Your task to perform on an android device: Check the weather Image 0: 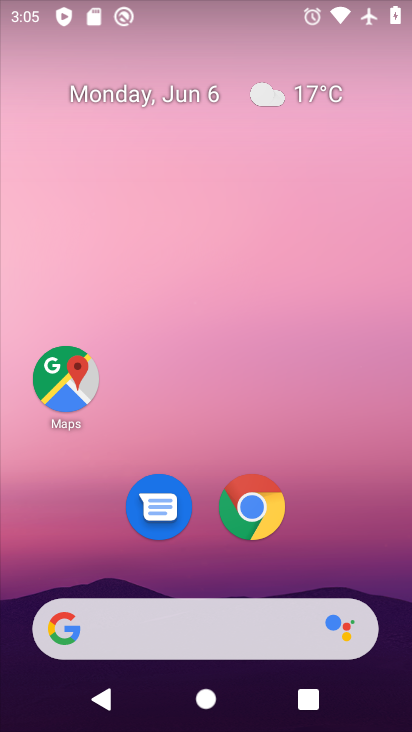
Step 0: click (182, 630)
Your task to perform on an android device: Check the weather Image 1: 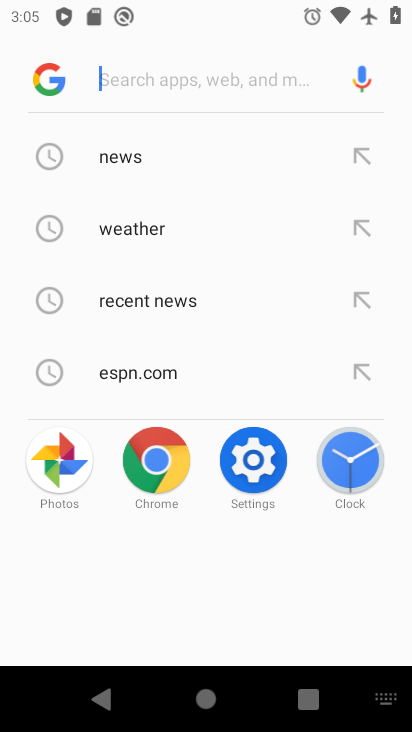
Step 1: click (135, 227)
Your task to perform on an android device: Check the weather Image 2: 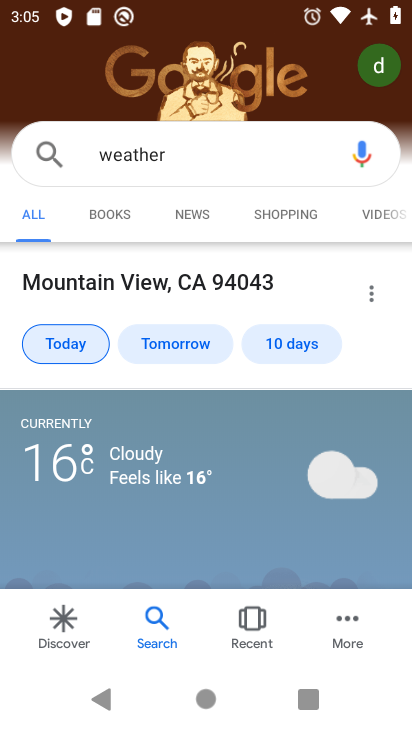
Step 2: task complete